Your task to perform on an android device: turn vacation reply on in the gmail app Image 0: 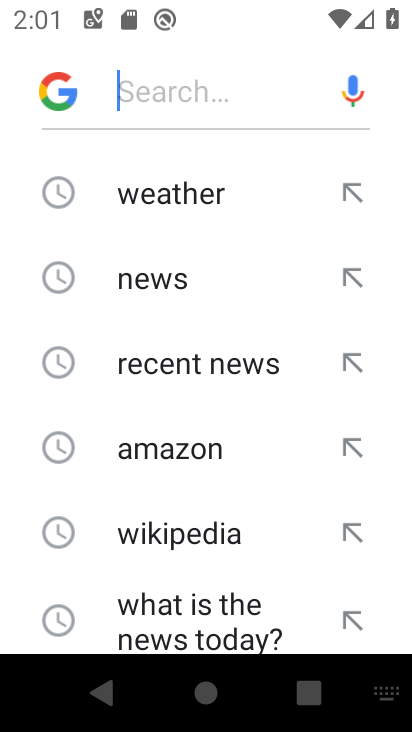
Step 0: press home button
Your task to perform on an android device: turn vacation reply on in the gmail app Image 1: 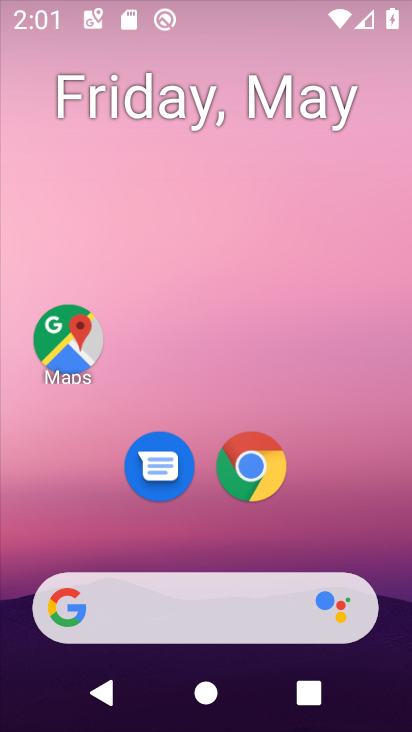
Step 1: drag from (346, 525) to (362, 68)
Your task to perform on an android device: turn vacation reply on in the gmail app Image 2: 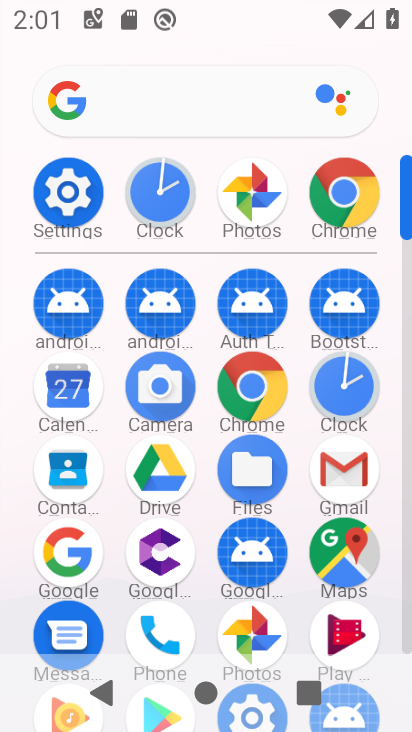
Step 2: click (348, 458)
Your task to perform on an android device: turn vacation reply on in the gmail app Image 3: 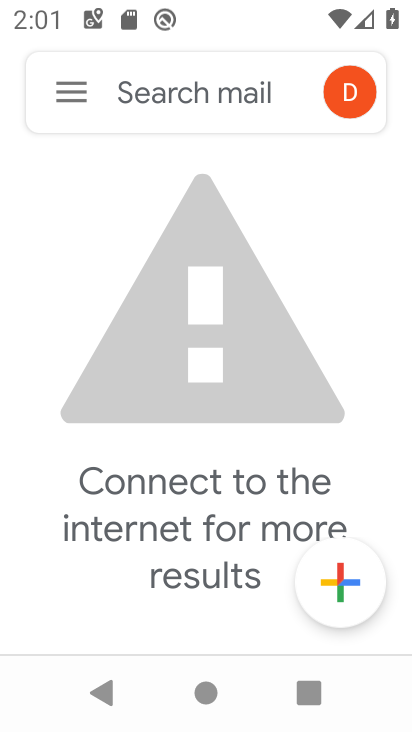
Step 3: click (64, 92)
Your task to perform on an android device: turn vacation reply on in the gmail app Image 4: 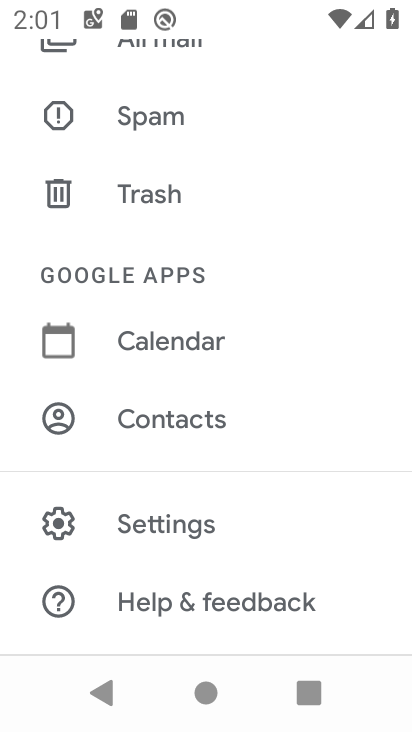
Step 4: drag from (182, 369) to (220, 236)
Your task to perform on an android device: turn vacation reply on in the gmail app Image 5: 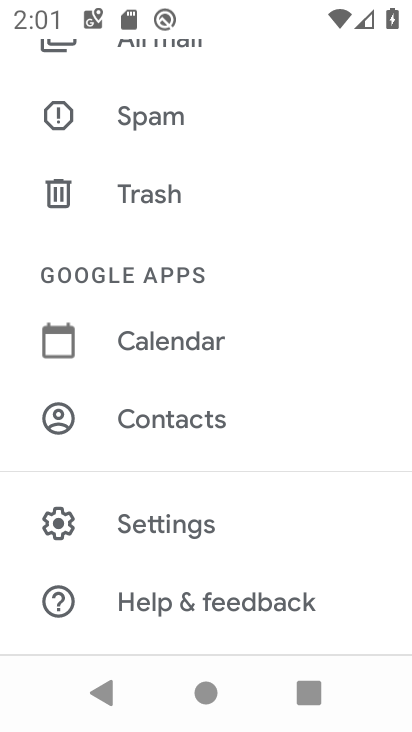
Step 5: click (138, 518)
Your task to perform on an android device: turn vacation reply on in the gmail app Image 6: 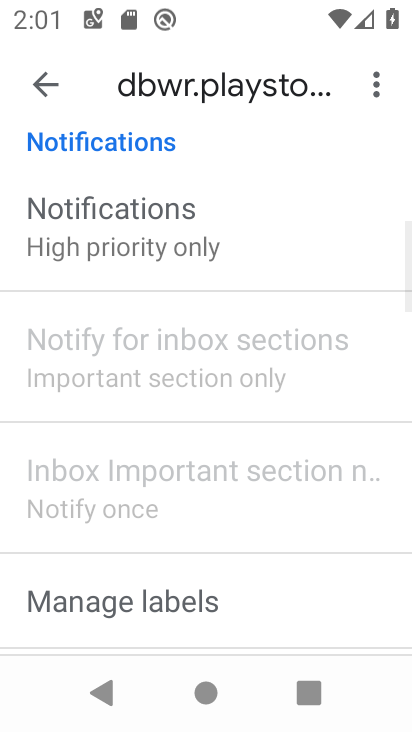
Step 6: drag from (210, 579) to (310, 146)
Your task to perform on an android device: turn vacation reply on in the gmail app Image 7: 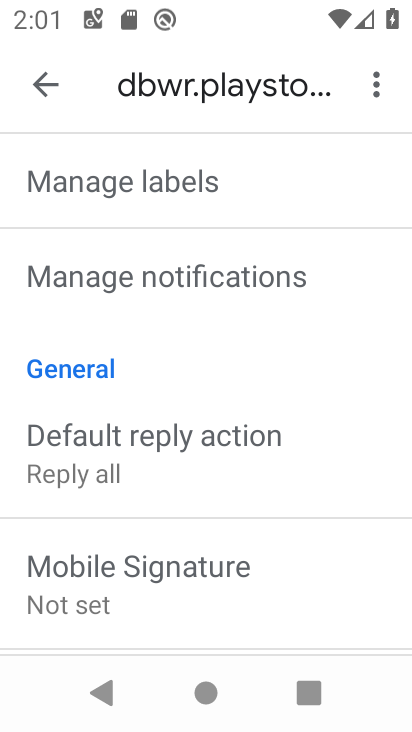
Step 7: drag from (215, 557) to (298, 149)
Your task to perform on an android device: turn vacation reply on in the gmail app Image 8: 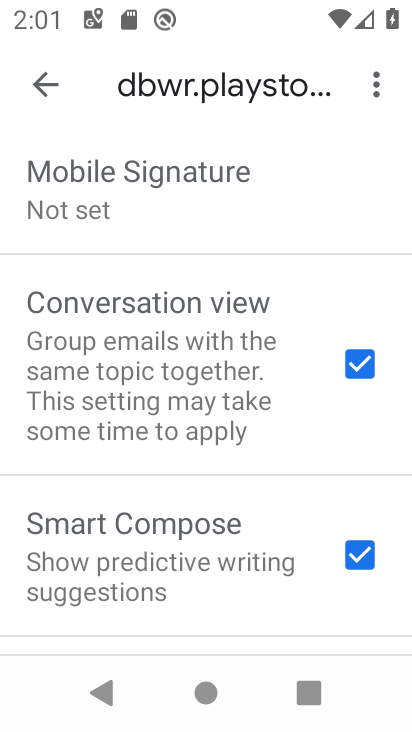
Step 8: drag from (213, 525) to (287, 128)
Your task to perform on an android device: turn vacation reply on in the gmail app Image 9: 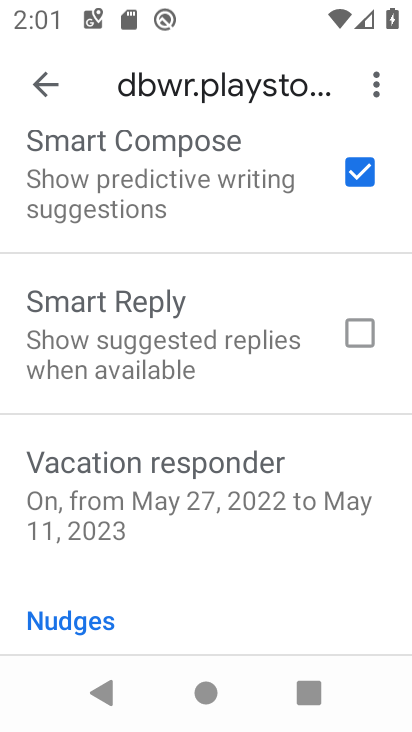
Step 9: click (211, 472)
Your task to perform on an android device: turn vacation reply on in the gmail app Image 10: 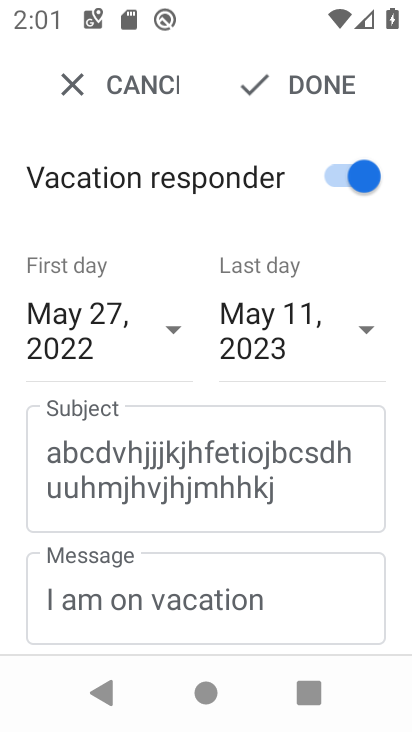
Step 10: task complete